Your task to perform on an android device: Open eBay Image 0: 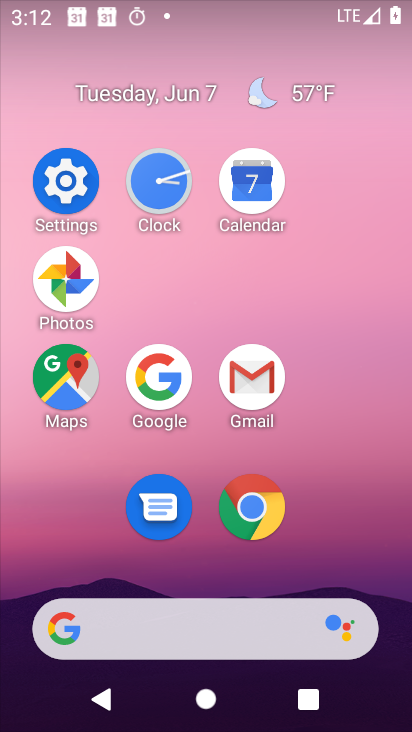
Step 0: click (258, 505)
Your task to perform on an android device: Open eBay Image 1: 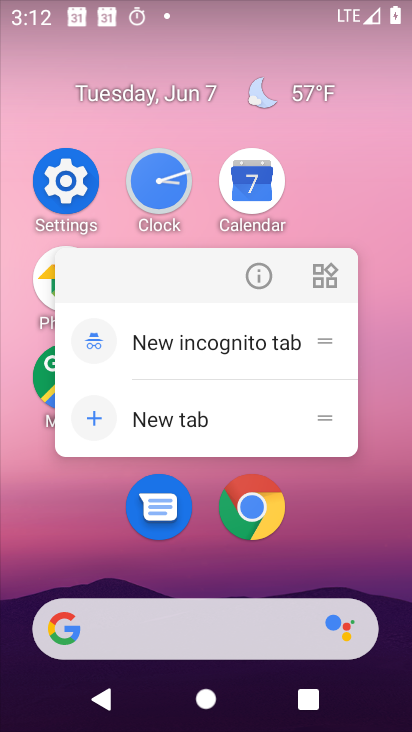
Step 1: click (253, 503)
Your task to perform on an android device: Open eBay Image 2: 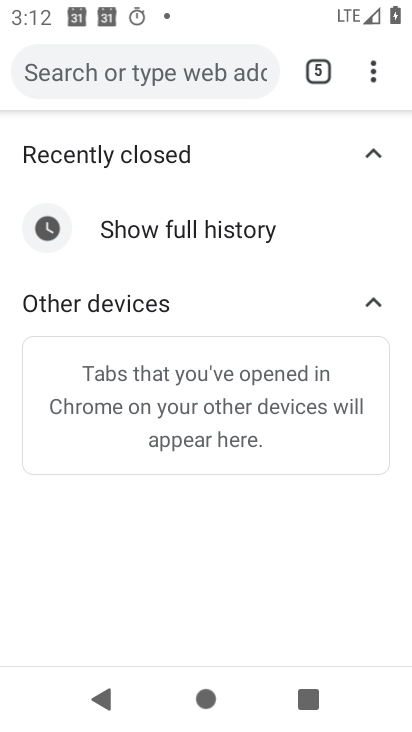
Step 2: click (326, 70)
Your task to perform on an android device: Open eBay Image 3: 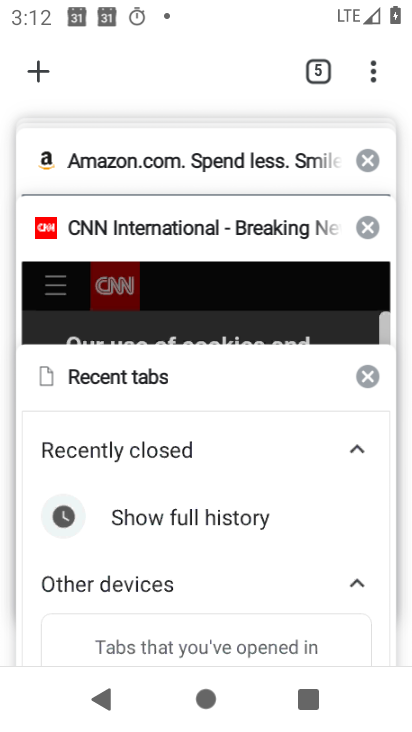
Step 3: click (51, 62)
Your task to perform on an android device: Open eBay Image 4: 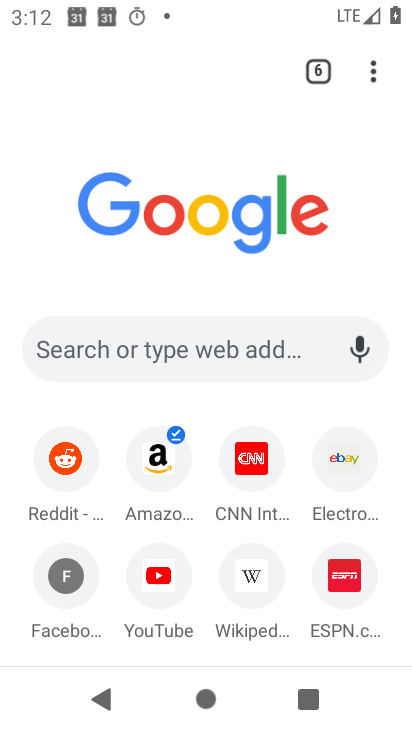
Step 4: click (347, 460)
Your task to perform on an android device: Open eBay Image 5: 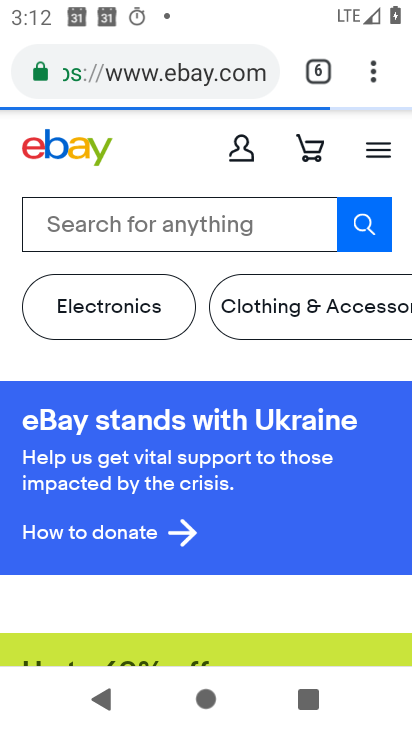
Step 5: task complete